Your task to perform on an android device: Open CNN.com Image 0: 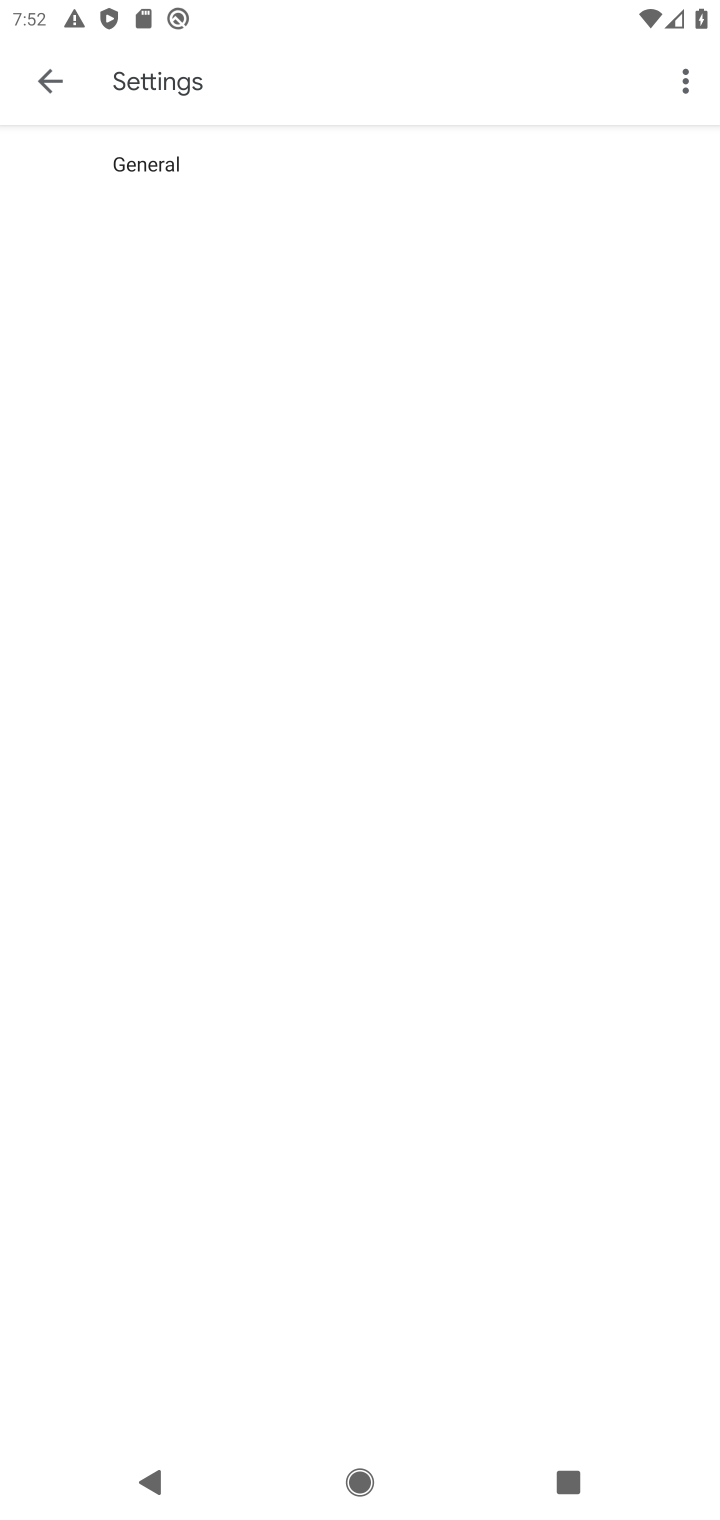
Step 0: press home button
Your task to perform on an android device: Open CNN.com Image 1: 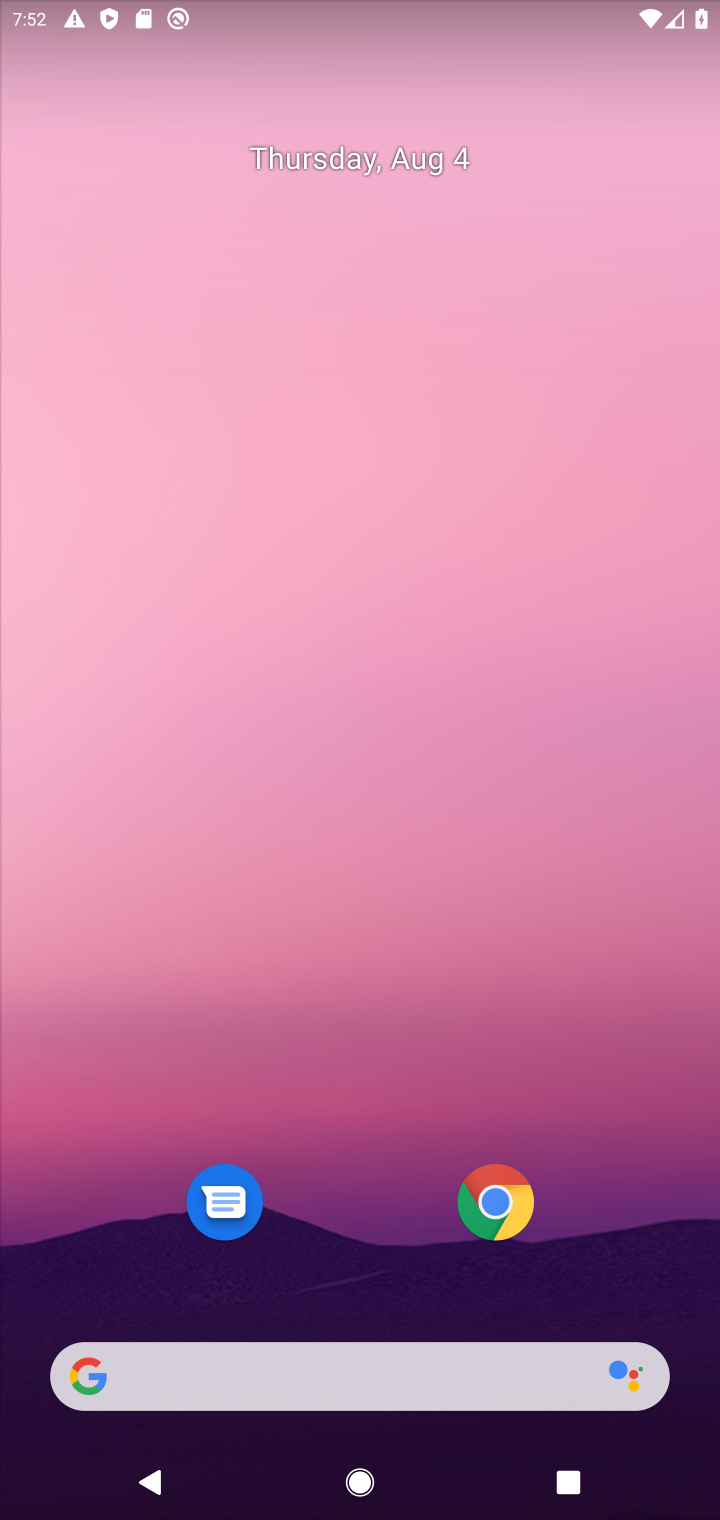
Step 1: click (495, 1184)
Your task to perform on an android device: Open CNN.com Image 2: 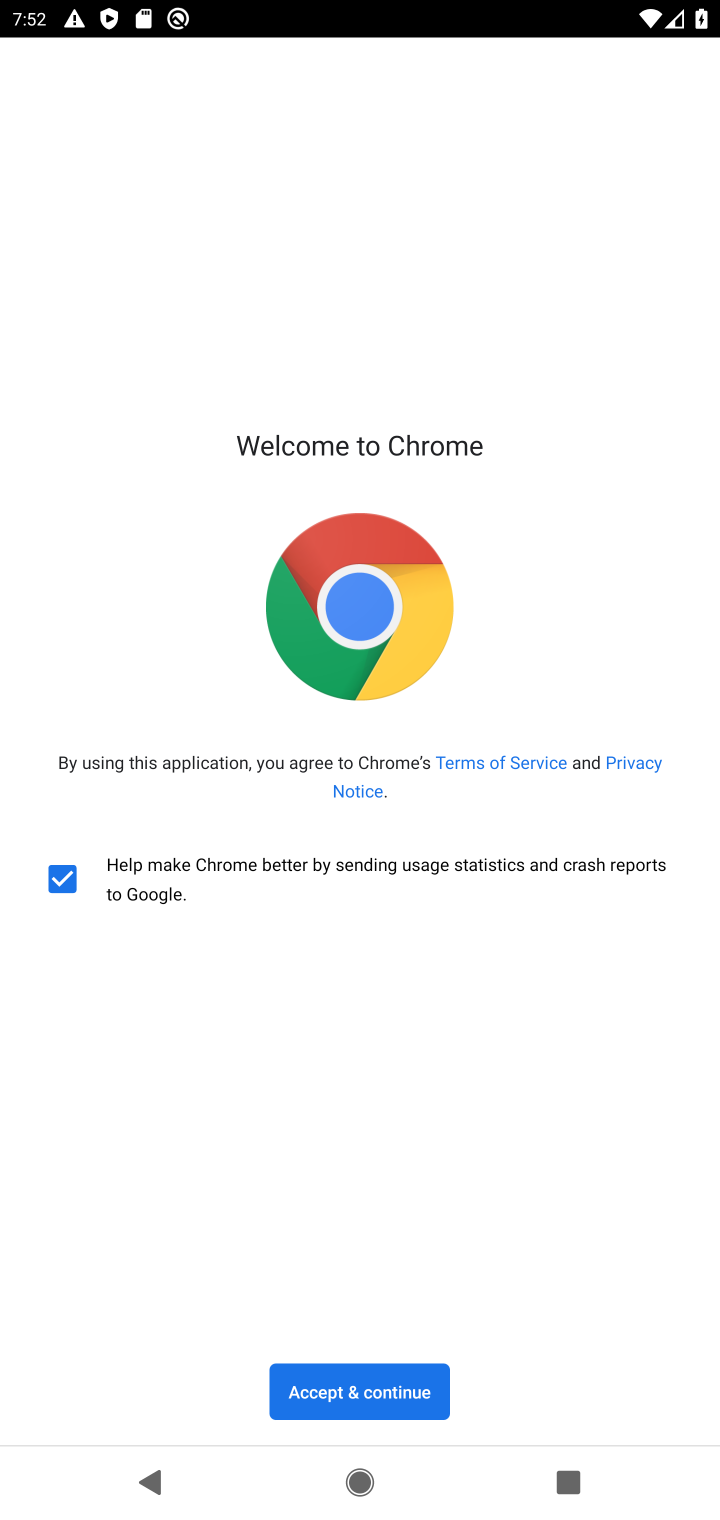
Step 2: click (397, 1375)
Your task to perform on an android device: Open CNN.com Image 3: 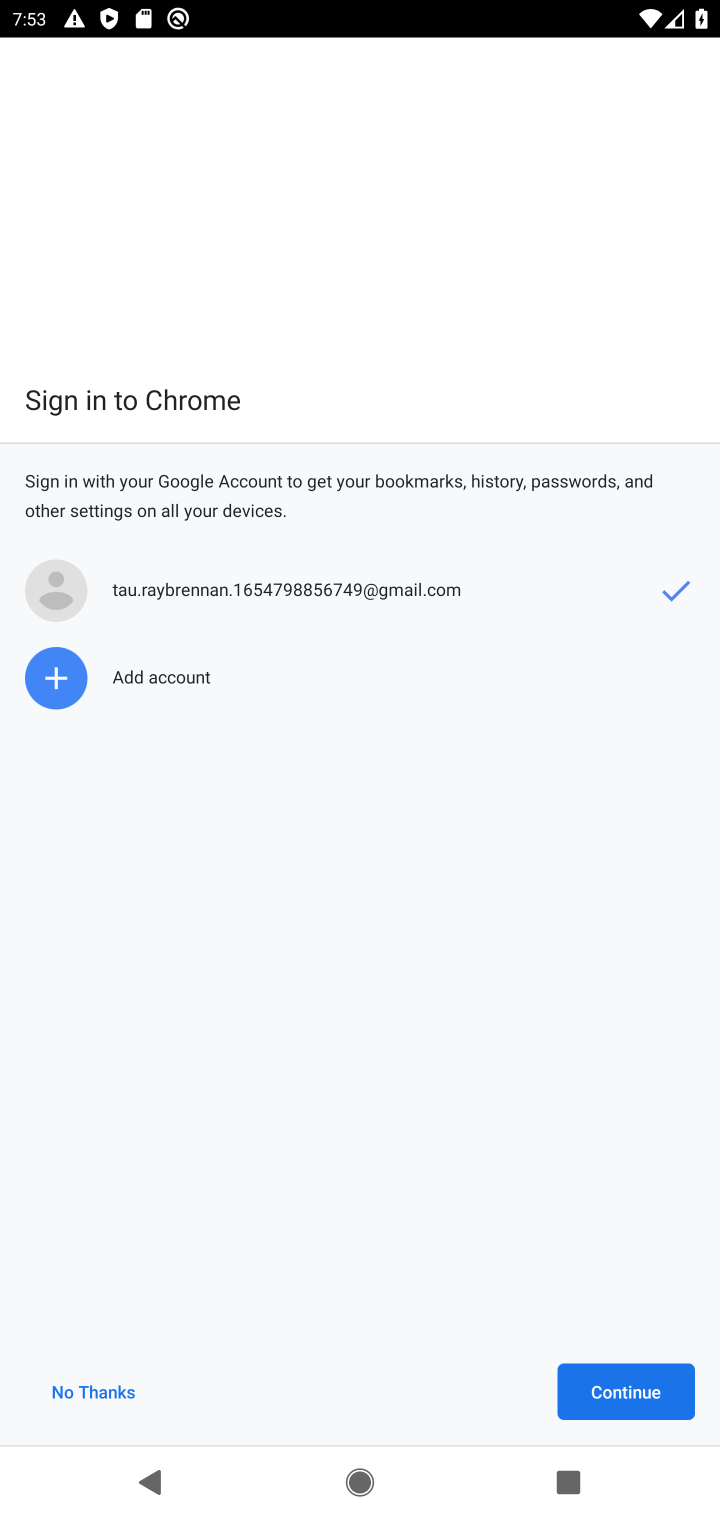
Step 3: click (584, 1374)
Your task to perform on an android device: Open CNN.com Image 4: 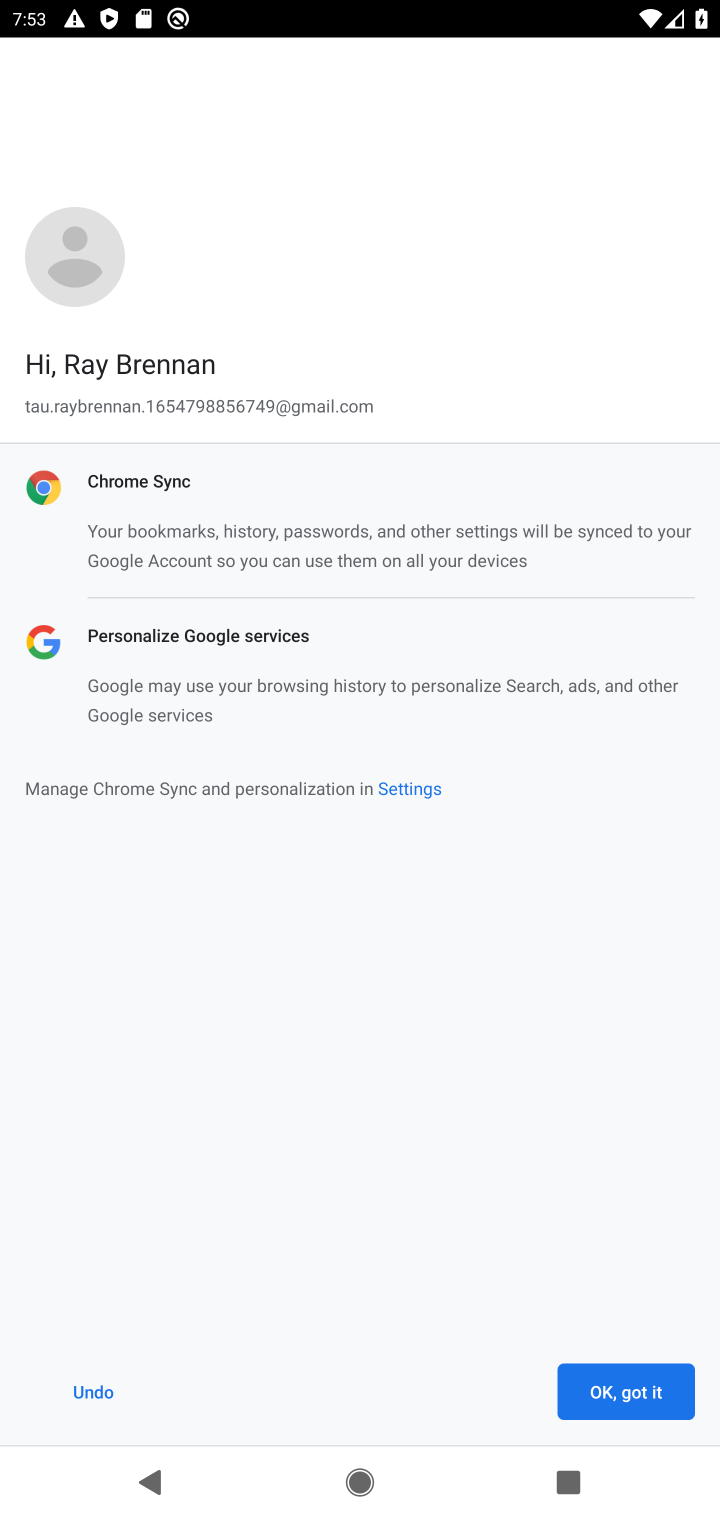
Step 4: click (596, 1378)
Your task to perform on an android device: Open CNN.com Image 5: 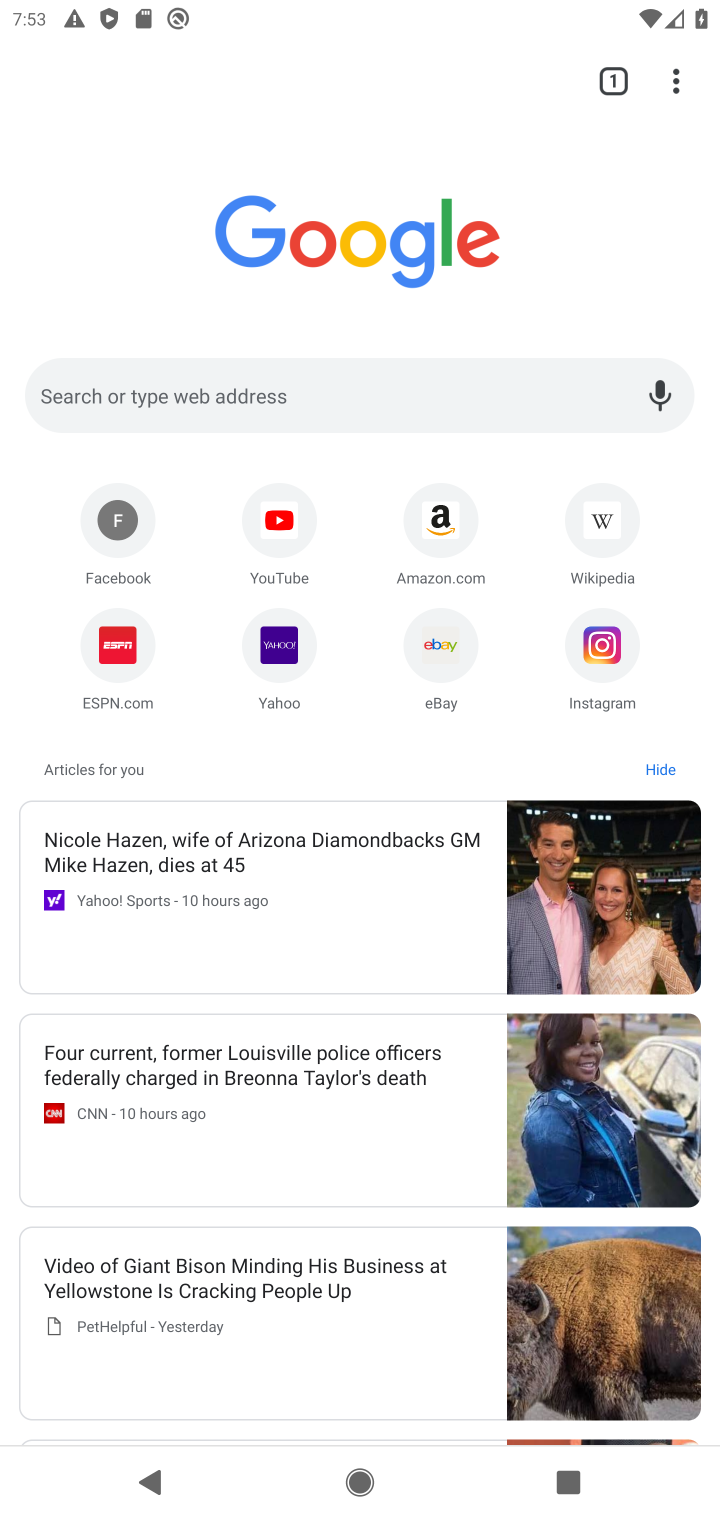
Step 5: click (370, 401)
Your task to perform on an android device: Open CNN.com Image 6: 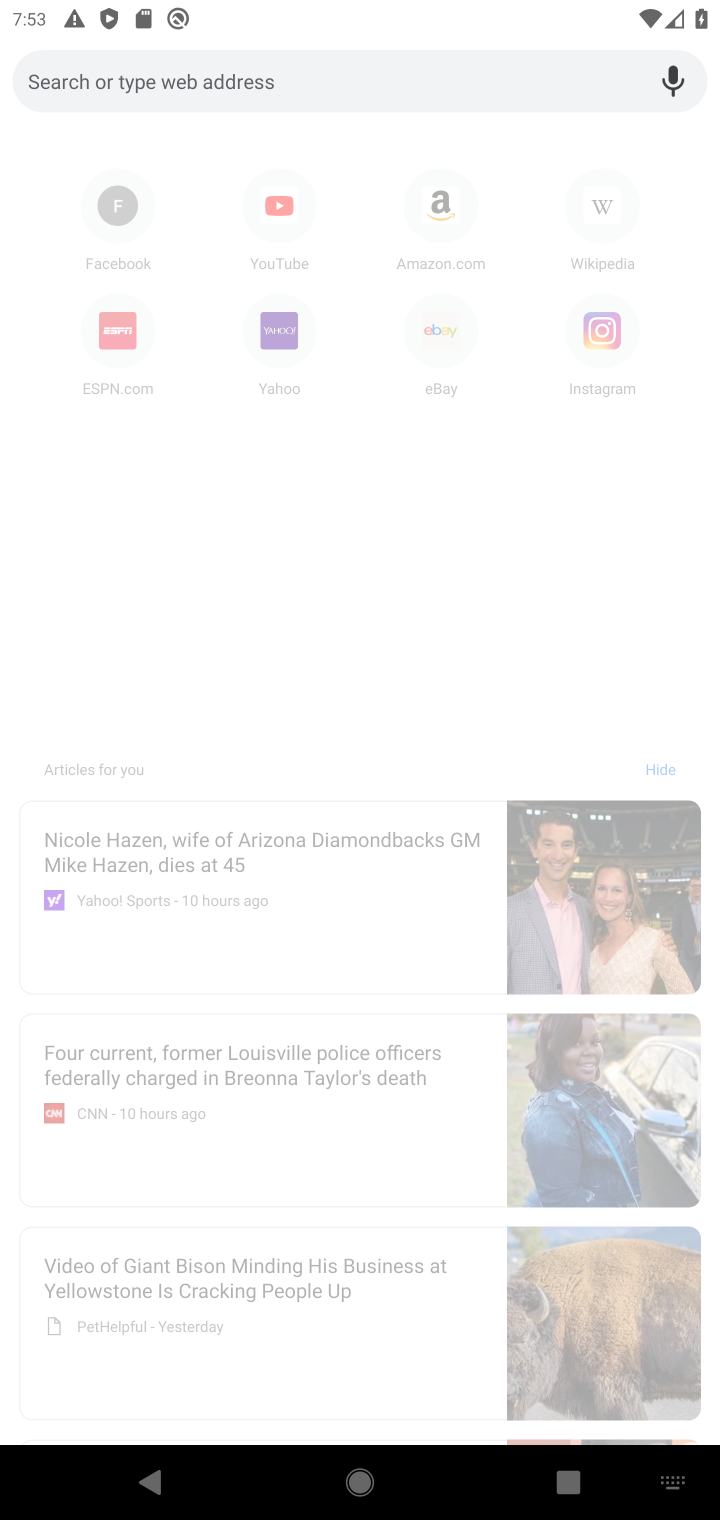
Step 6: type "CNN.com"
Your task to perform on an android device: Open CNN.com Image 7: 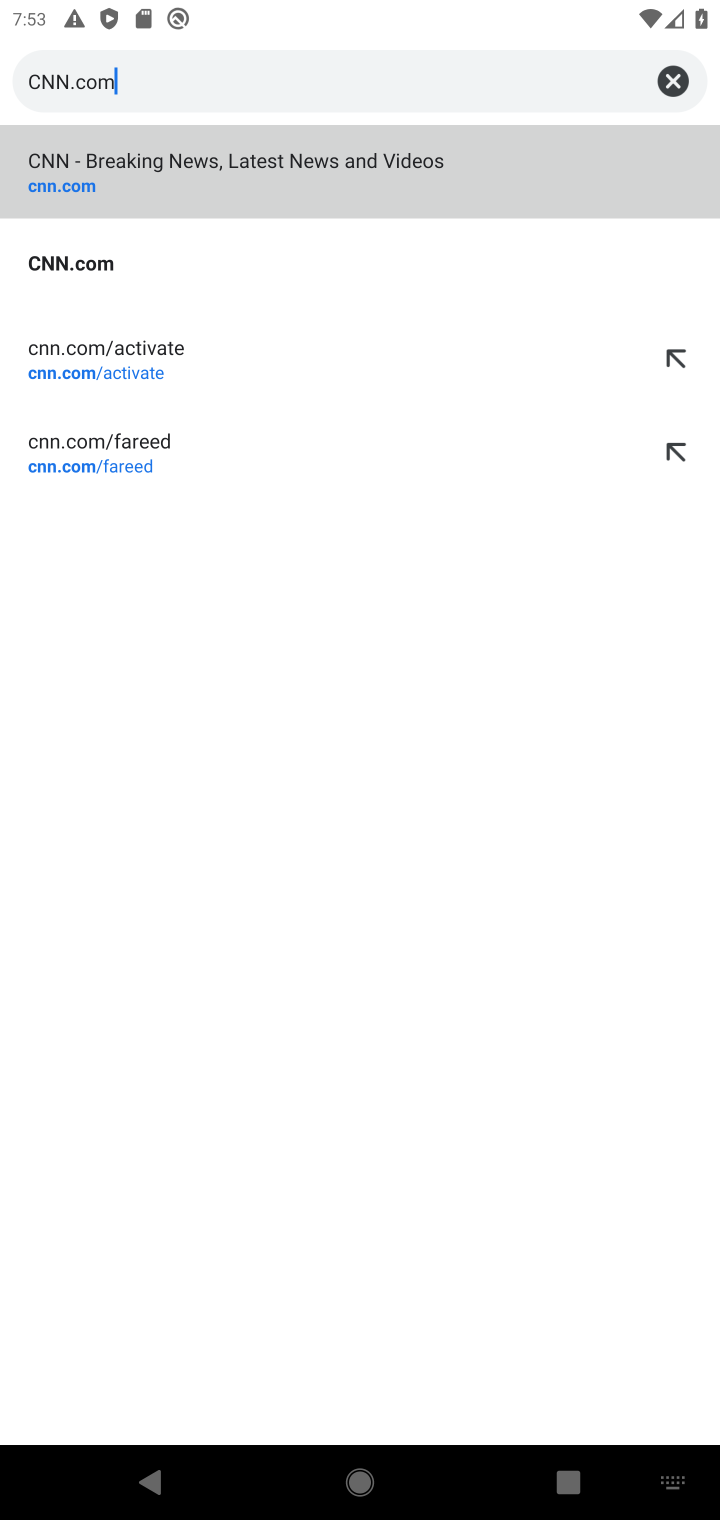
Step 7: type ""
Your task to perform on an android device: Open CNN.com Image 8: 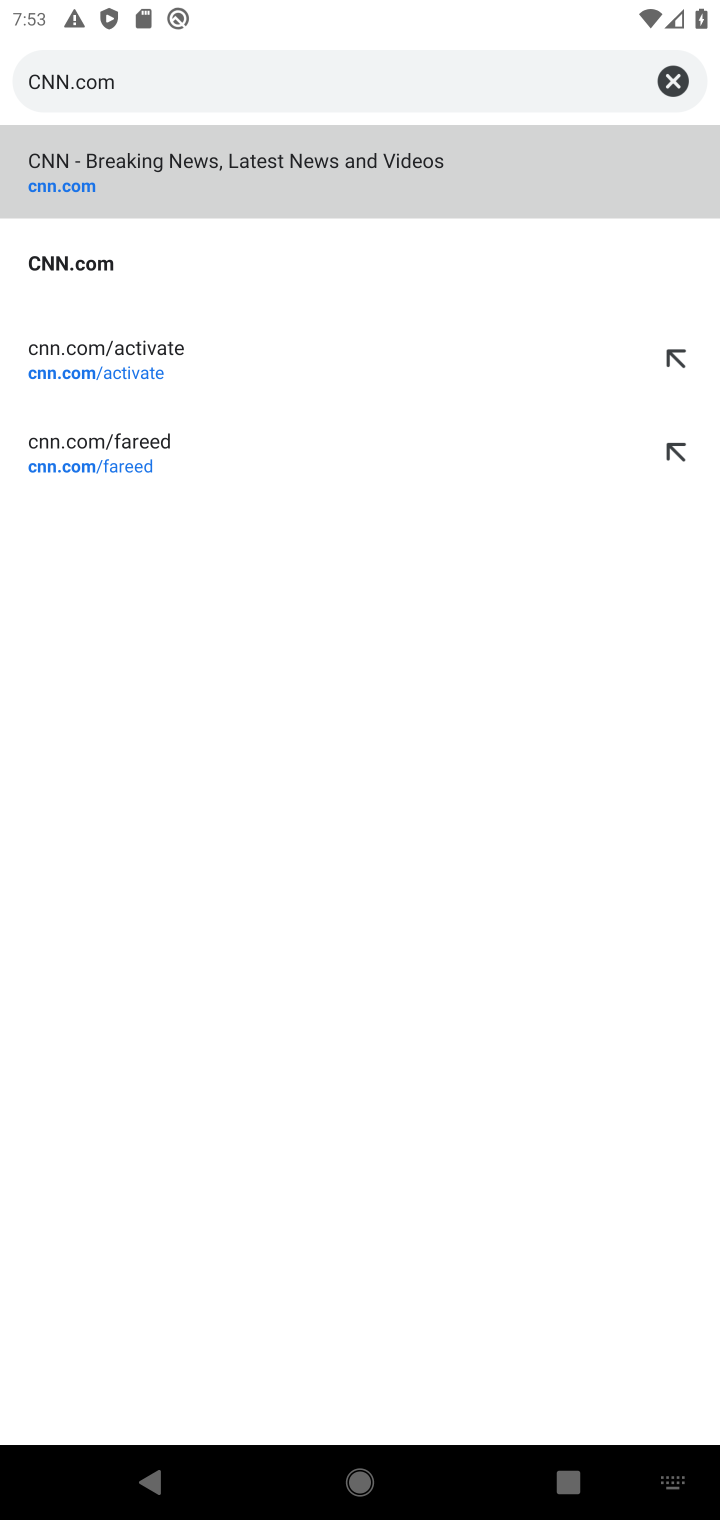
Step 8: click (134, 273)
Your task to perform on an android device: Open CNN.com Image 9: 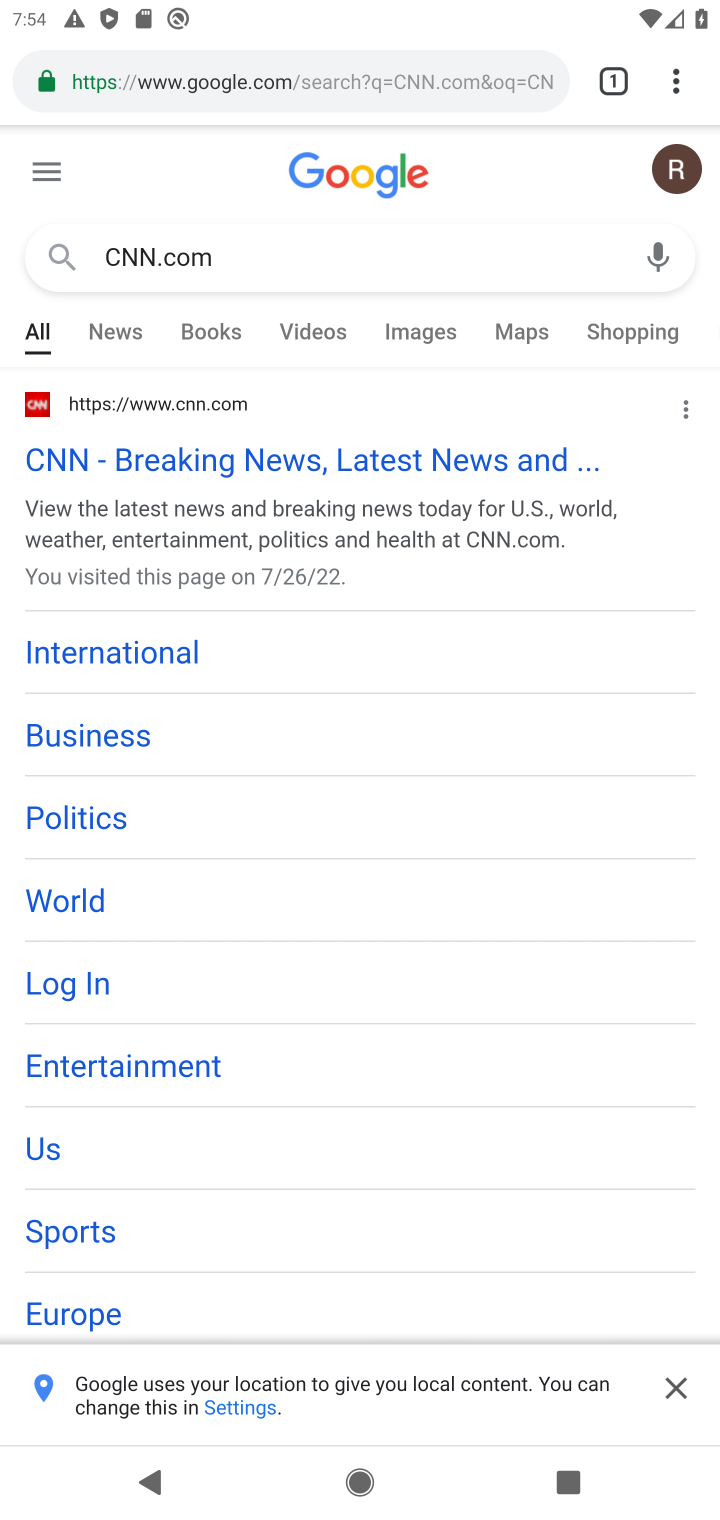
Step 9: click (325, 446)
Your task to perform on an android device: Open CNN.com Image 10: 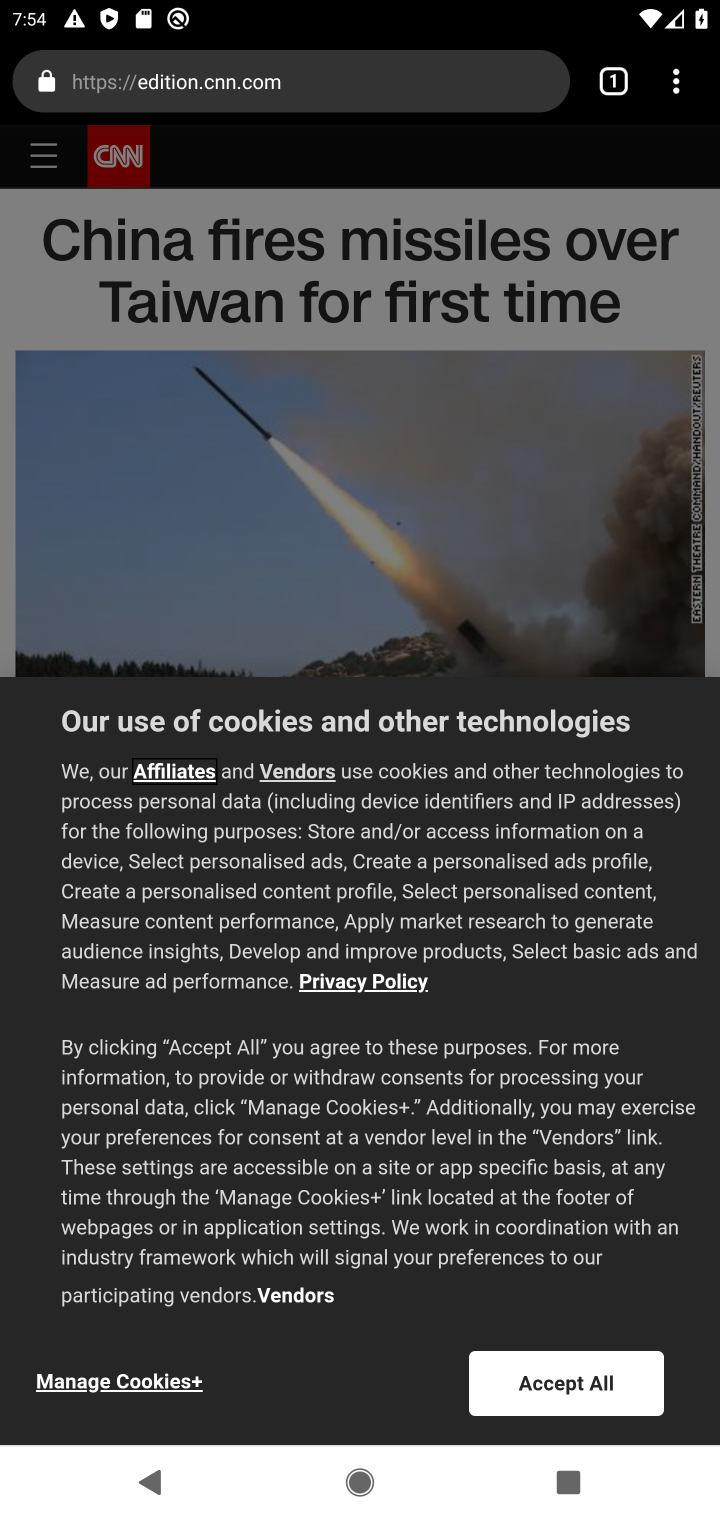
Step 10: task complete